Your task to perform on an android device: What's the weather? Image 0: 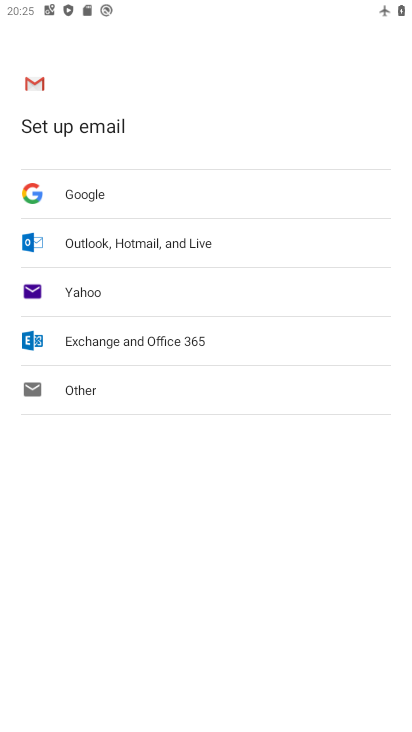
Step 0: press home button
Your task to perform on an android device: What's the weather? Image 1: 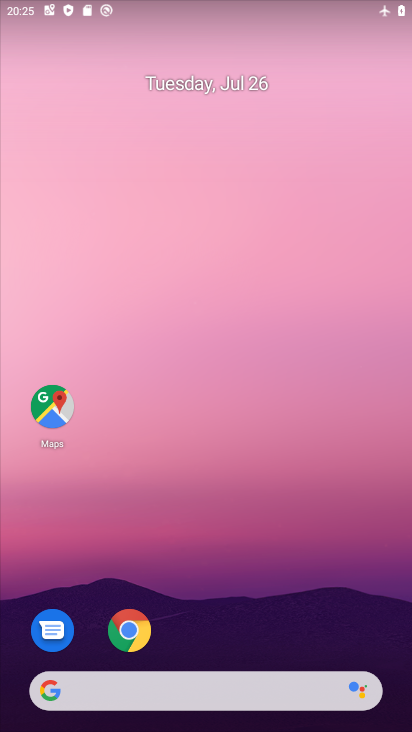
Step 1: click (232, 680)
Your task to perform on an android device: What's the weather? Image 2: 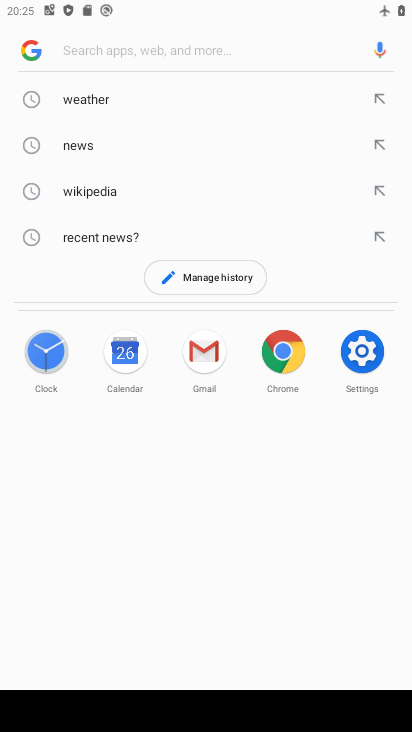
Step 2: click (102, 102)
Your task to perform on an android device: What's the weather? Image 3: 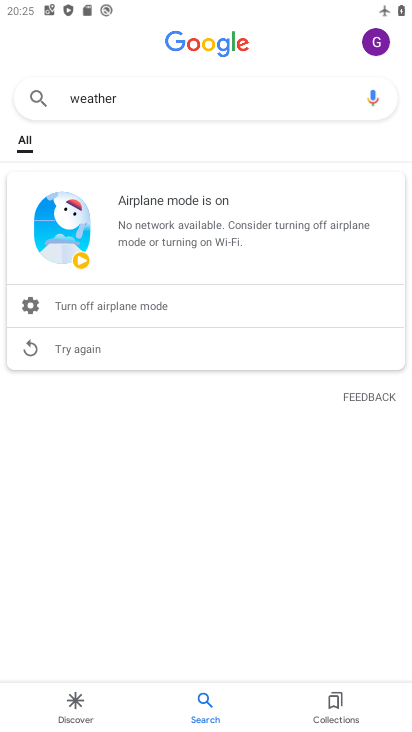
Step 3: task complete